Your task to perform on an android device: toggle airplane mode Image 0: 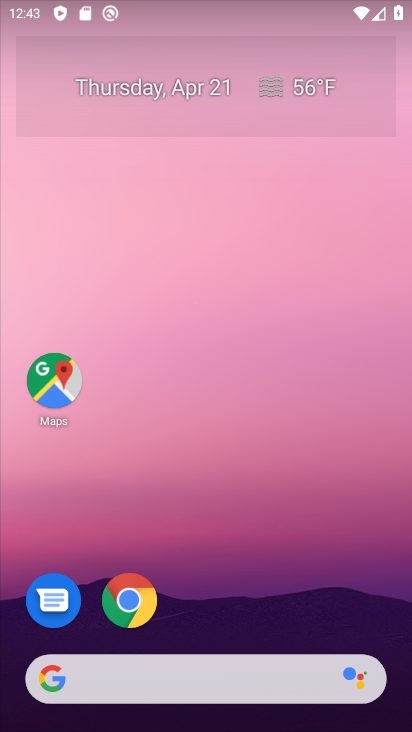
Step 0: click (364, 182)
Your task to perform on an android device: toggle airplane mode Image 1: 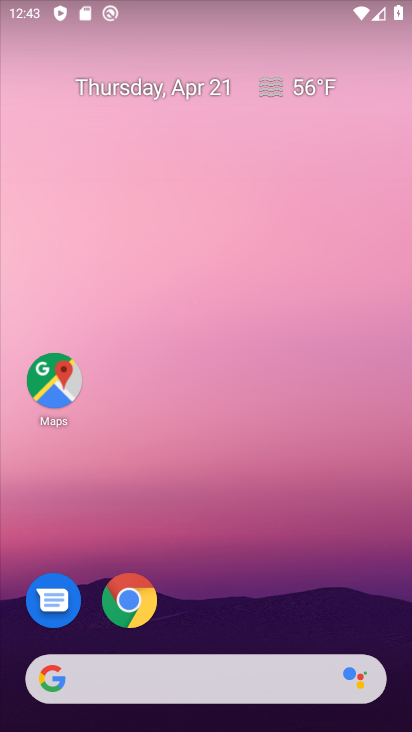
Step 1: drag from (372, 553) to (371, 194)
Your task to perform on an android device: toggle airplane mode Image 2: 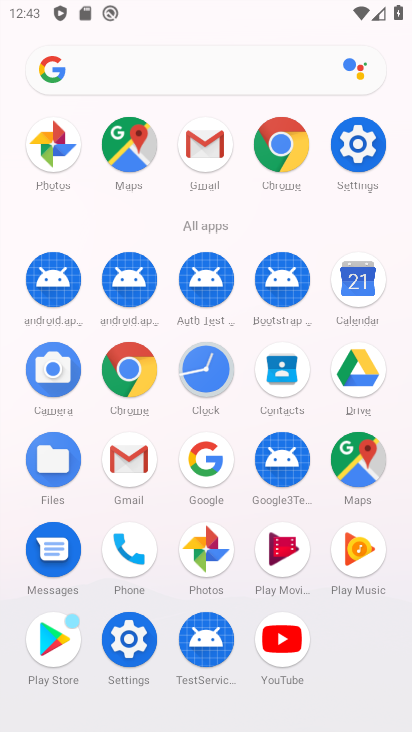
Step 2: click (347, 139)
Your task to perform on an android device: toggle airplane mode Image 3: 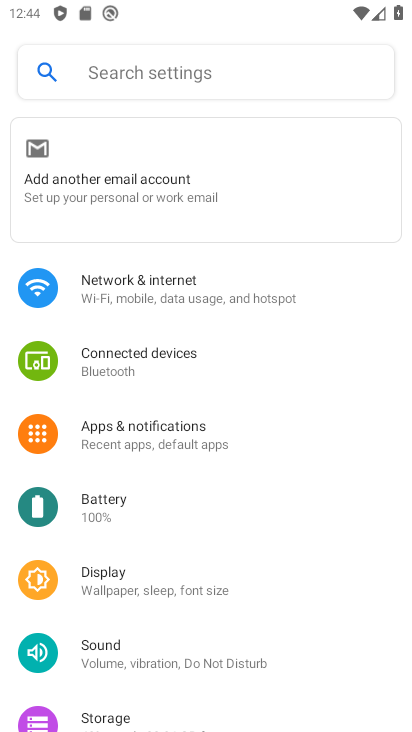
Step 3: click (112, 297)
Your task to perform on an android device: toggle airplane mode Image 4: 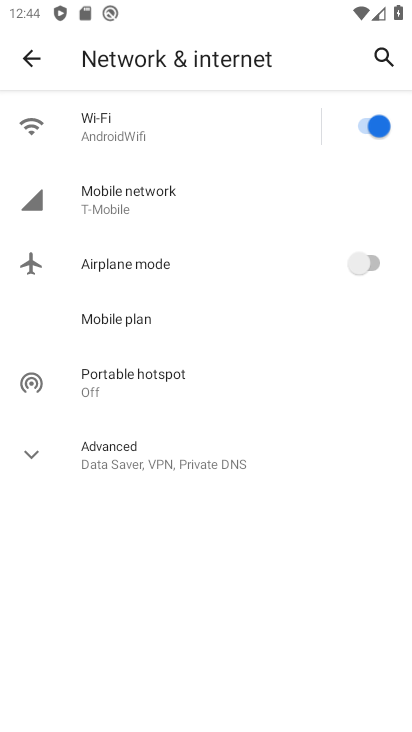
Step 4: click (373, 264)
Your task to perform on an android device: toggle airplane mode Image 5: 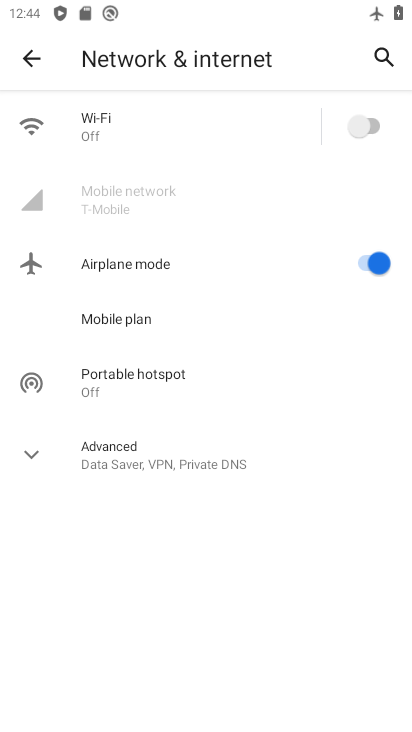
Step 5: task complete